Your task to perform on an android device: toggle notifications settings in the gmail app Image 0: 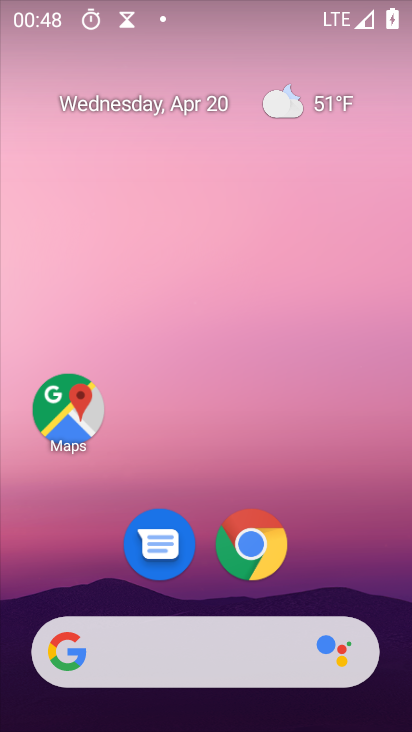
Step 0: drag from (342, 286) to (349, 130)
Your task to perform on an android device: toggle notifications settings in the gmail app Image 1: 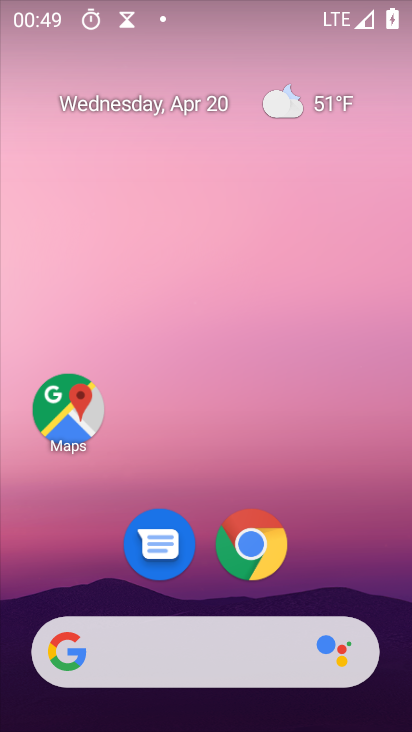
Step 1: drag from (317, 518) to (308, 116)
Your task to perform on an android device: toggle notifications settings in the gmail app Image 2: 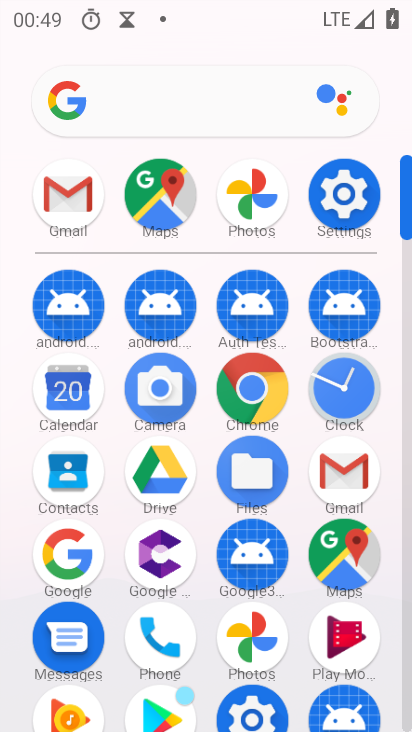
Step 2: click (340, 474)
Your task to perform on an android device: toggle notifications settings in the gmail app Image 3: 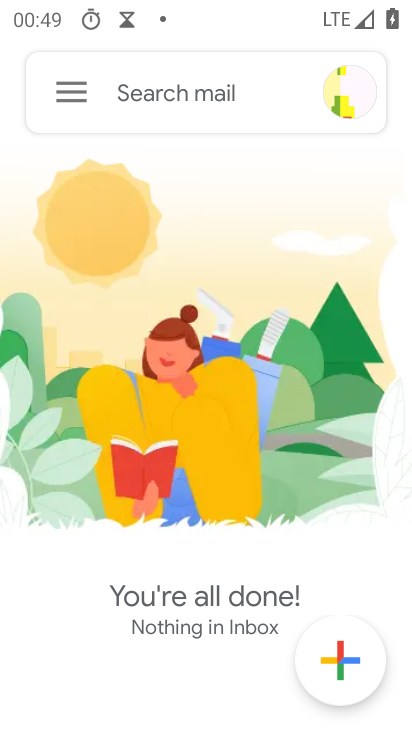
Step 3: click (76, 105)
Your task to perform on an android device: toggle notifications settings in the gmail app Image 4: 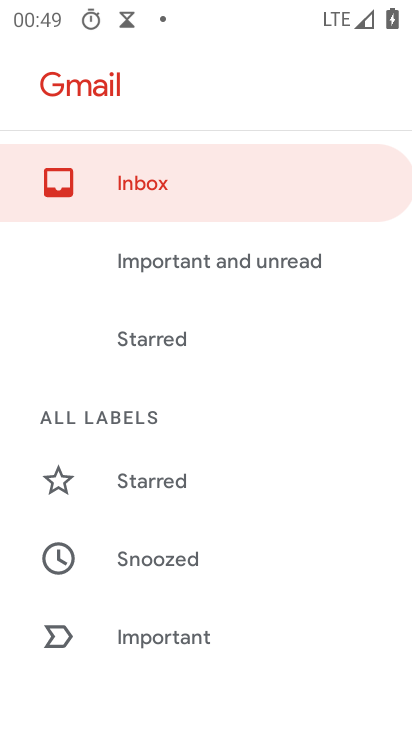
Step 4: drag from (176, 587) to (217, 291)
Your task to perform on an android device: toggle notifications settings in the gmail app Image 5: 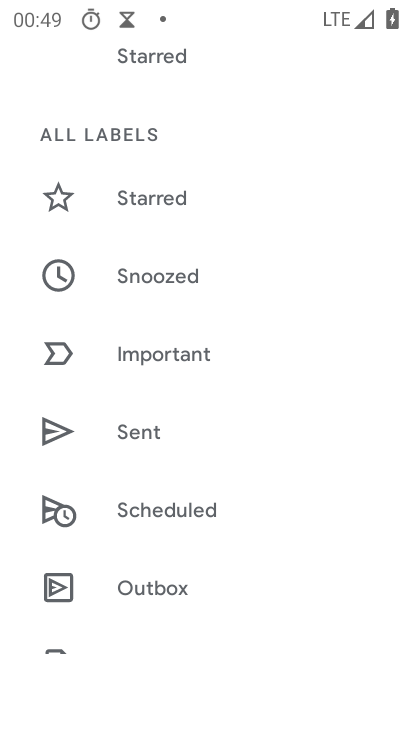
Step 5: drag from (227, 584) to (277, 358)
Your task to perform on an android device: toggle notifications settings in the gmail app Image 6: 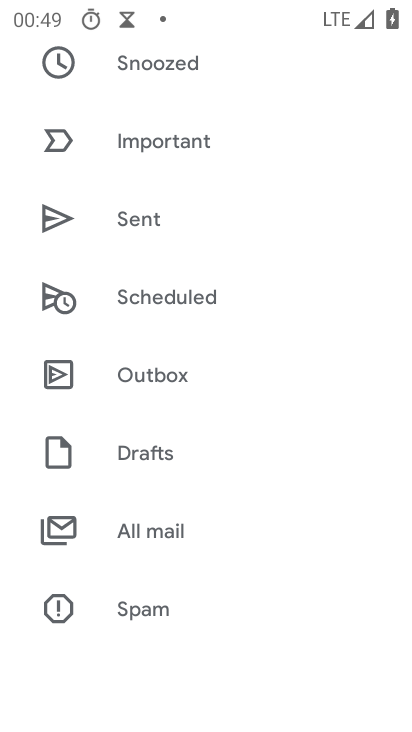
Step 6: drag from (228, 550) to (245, 404)
Your task to perform on an android device: toggle notifications settings in the gmail app Image 7: 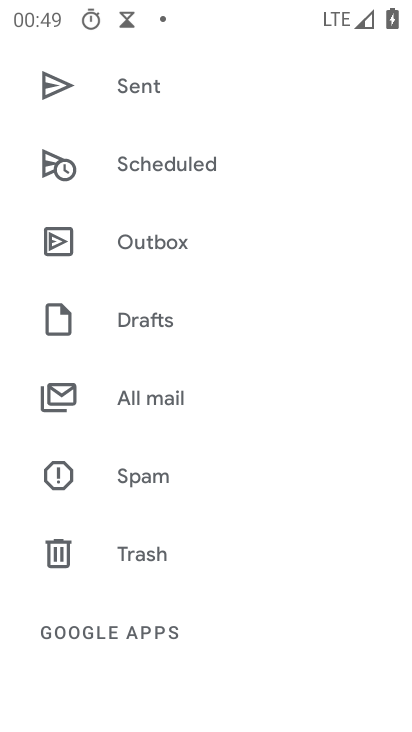
Step 7: drag from (189, 545) to (212, 434)
Your task to perform on an android device: toggle notifications settings in the gmail app Image 8: 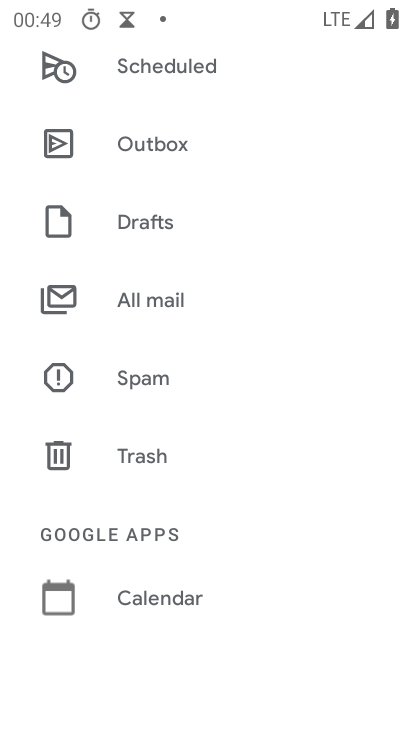
Step 8: drag from (197, 569) to (227, 474)
Your task to perform on an android device: toggle notifications settings in the gmail app Image 9: 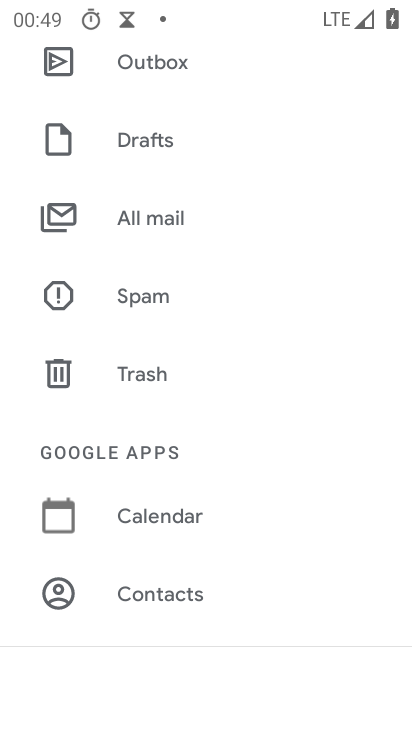
Step 9: drag from (195, 560) to (224, 464)
Your task to perform on an android device: toggle notifications settings in the gmail app Image 10: 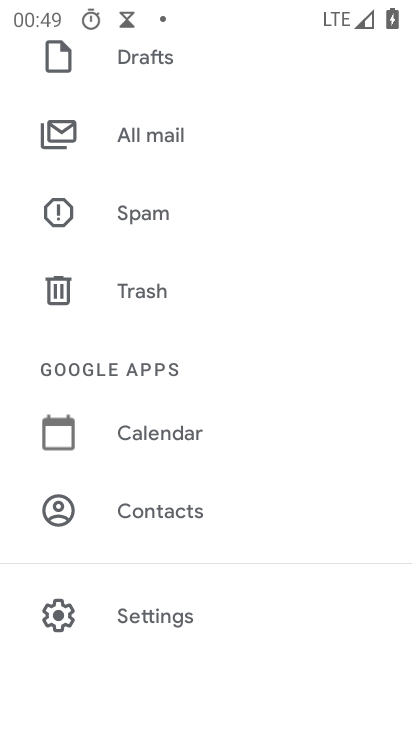
Step 10: click (207, 608)
Your task to perform on an android device: toggle notifications settings in the gmail app Image 11: 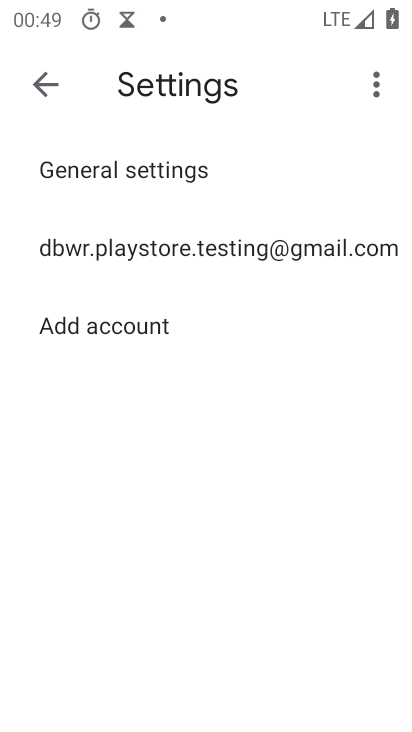
Step 11: click (171, 246)
Your task to perform on an android device: toggle notifications settings in the gmail app Image 12: 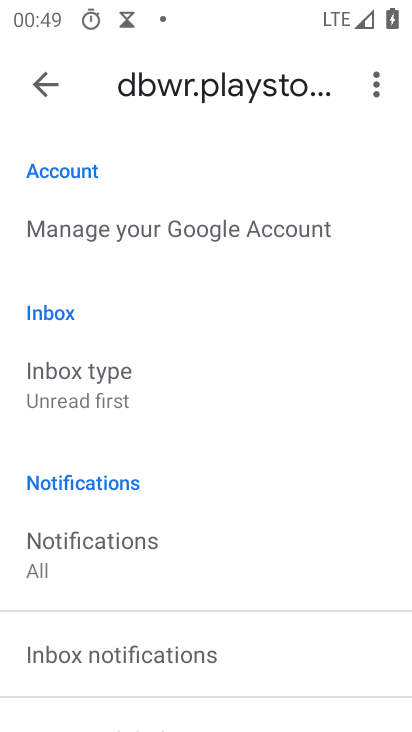
Step 12: drag from (89, 586) to (124, 465)
Your task to perform on an android device: toggle notifications settings in the gmail app Image 13: 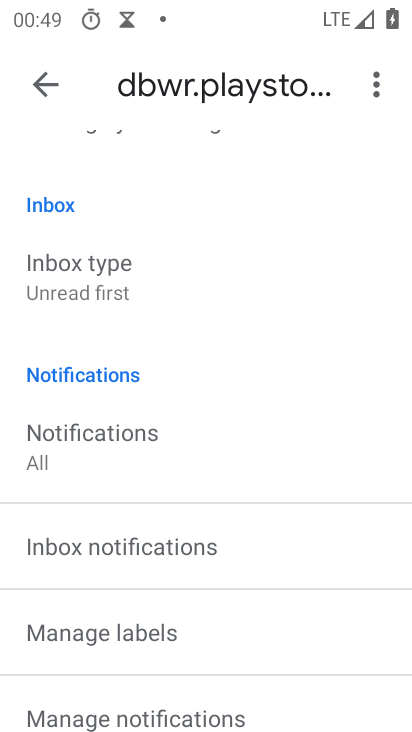
Step 13: drag from (81, 580) to (113, 474)
Your task to perform on an android device: toggle notifications settings in the gmail app Image 14: 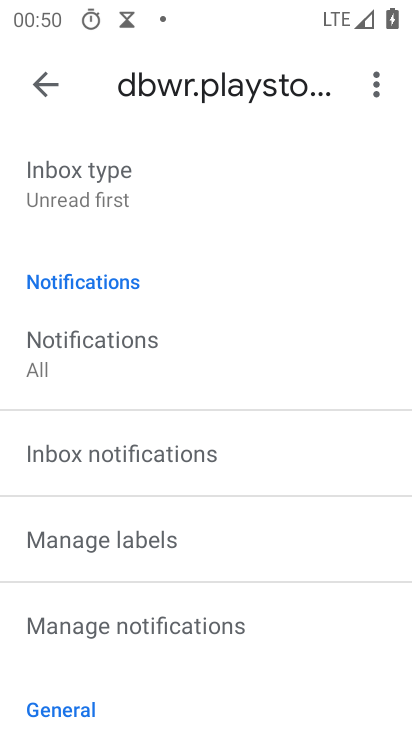
Step 14: click (88, 625)
Your task to perform on an android device: toggle notifications settings in the gmail app Image 15: 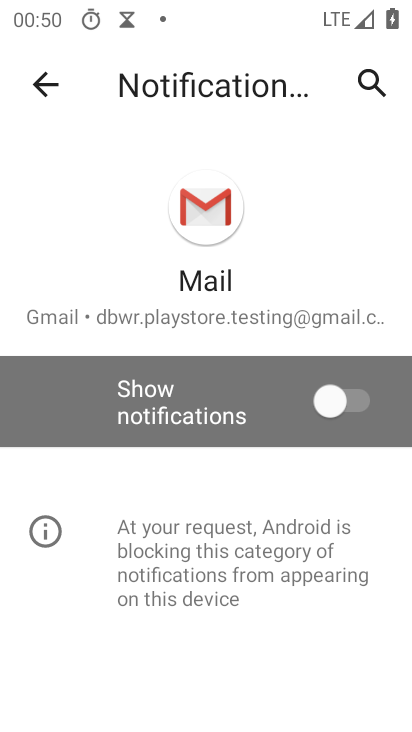
Step 15: click (331, 397)
Your task to perform on an android device: toggle notifications settings in the gmail app Image 16: 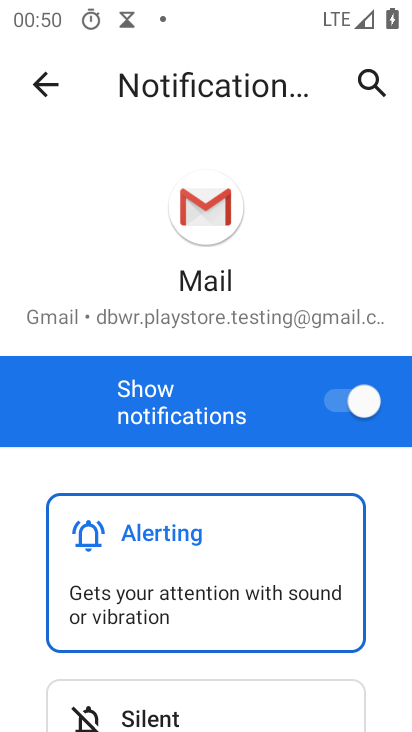
Step 16: task complete